Your task to perform on an android device: Go to wifi settings Image 0: 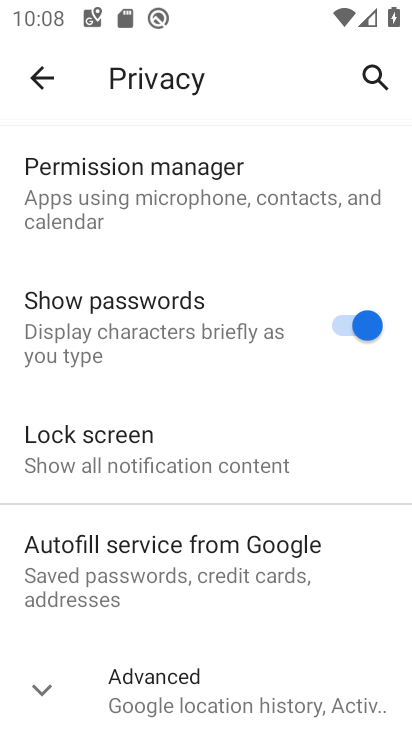
Step 0: press home button
Your task to perform on an android device: Go to wifi settings Image 1: 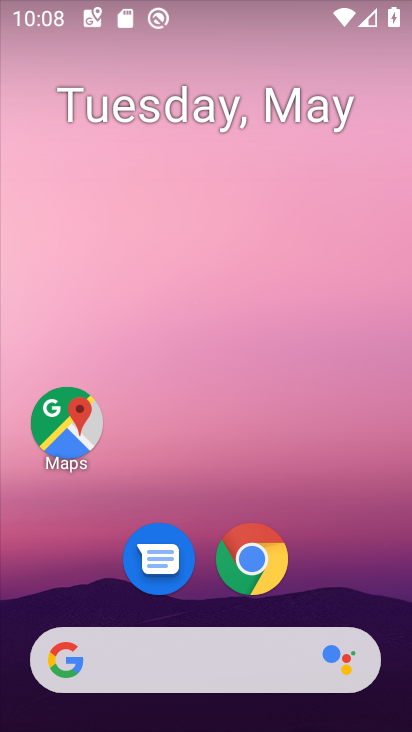
Step 1: drag from (395, 653) to (309, 45)
Your task to perform on an android device: Go to wifi settings Image 2: 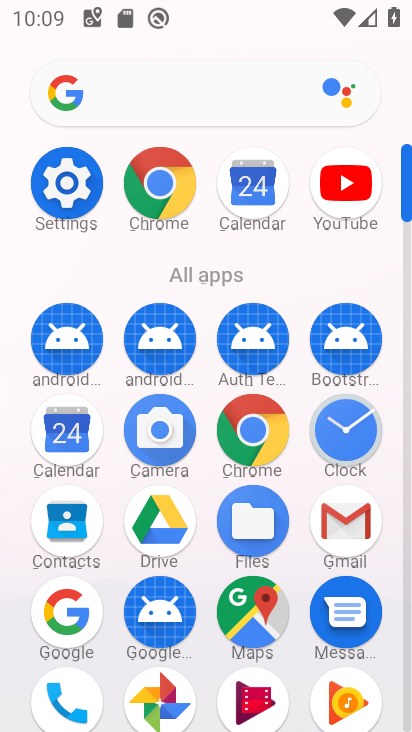
Step 2: click (85, 197)
Your task to perform on an android device: Go to wifi settings Image 3: 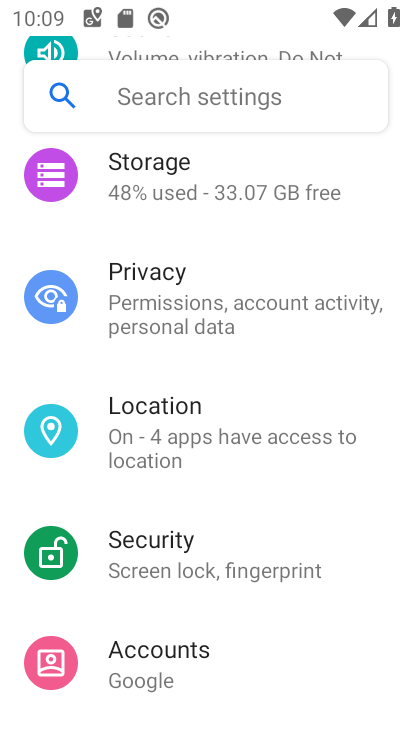
Step 3: drag from (130, 184) to (198, 669)
Your task to perform on an android device: Go to wifi settings Image 4: 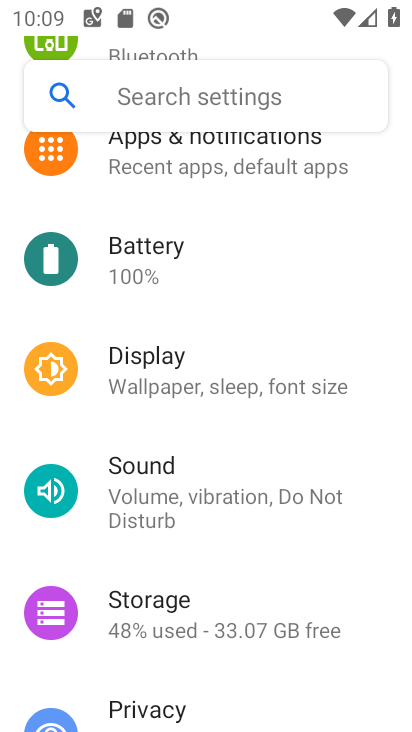
Step 4: drag from (103, 225) to (132, 724)
Your task to perform on an android device: Go to wifi settings Image 5: 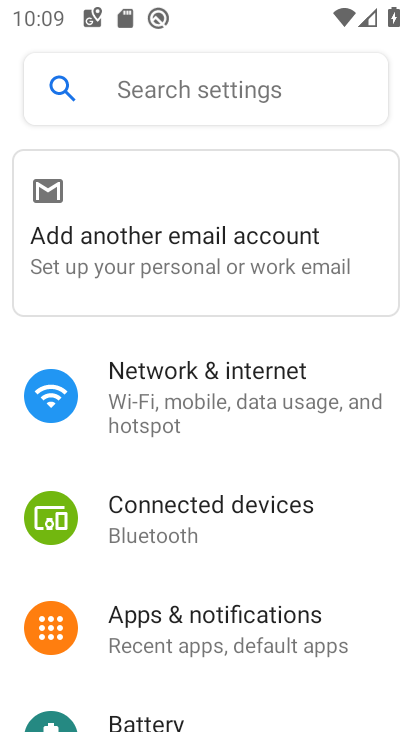
Step 5: click (206, 405)
Your task to perform on an android device: Go to wifi settings Image 6: 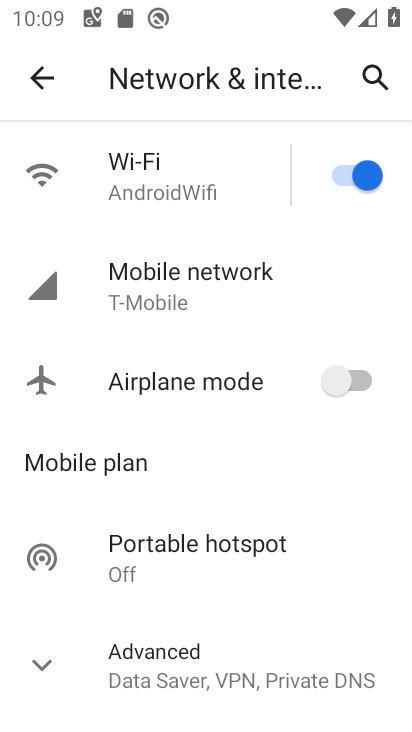
Step 6: click (162, 194)
Your task to perform on an android device: Go to wifi settings Image 7: 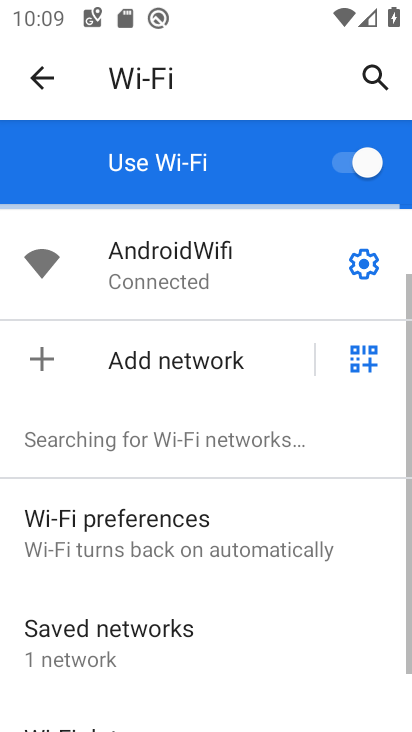
Step 7: task complete